Your task to perform on an android device: star an email in the gmail app Image 0: 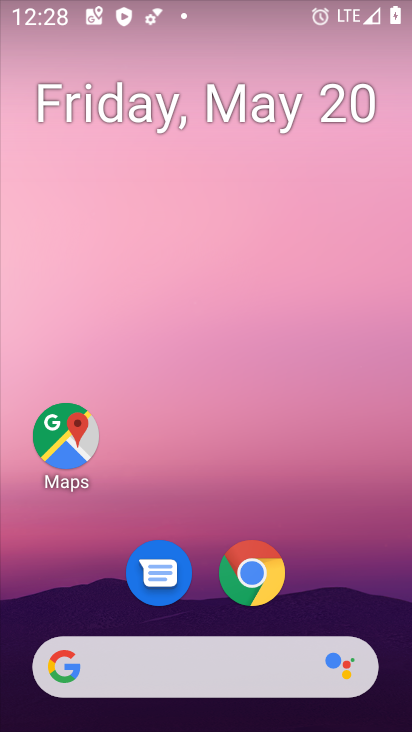
Step 0: drag from (194, 589) to (175, 120)
Your task to perform on an android device: star an email in the gmail app Image 1: 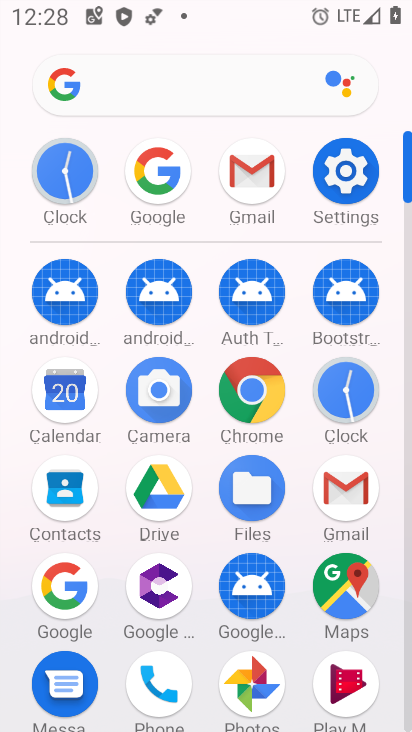
Step 1: click (251, 185)
Your task to perform on an android device: star an email in the gmail app Image 2: 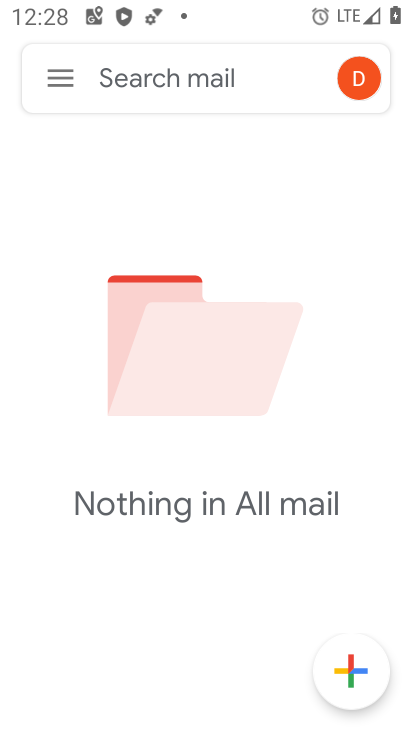
Step 2: click (59, 70)
Your task to perform on an android device: star an email in the gmail app Image 3: 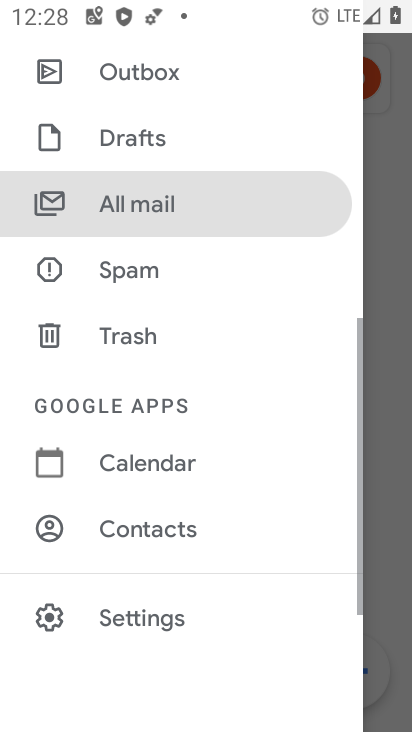
Step 3: click (377, 189)
Your task to perform on an android device: star an email in the gmail app Image 4: 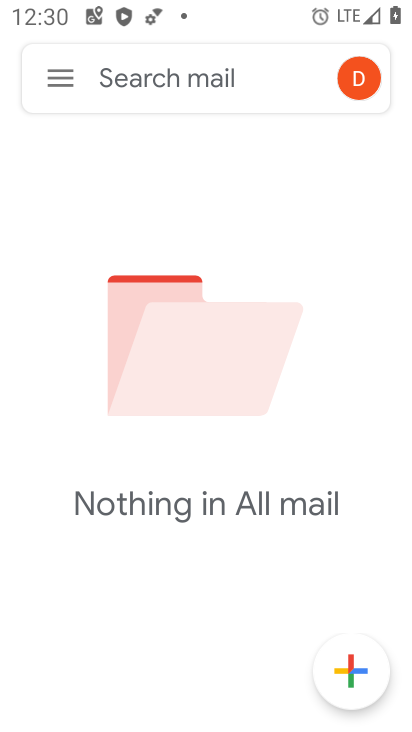
Step 4: task complete